Your task to perform on an android device: Open the stopwatch Image 0: 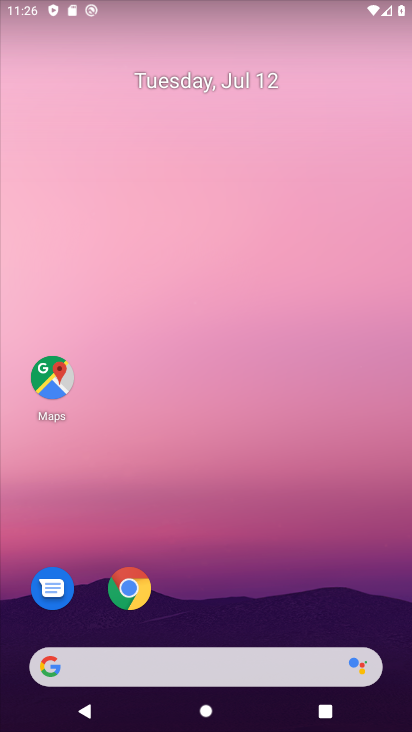
Step 0: drag from (191, 580) to (228, 230)
Your task to perform on an android device: Open the stopwatch Image 1: 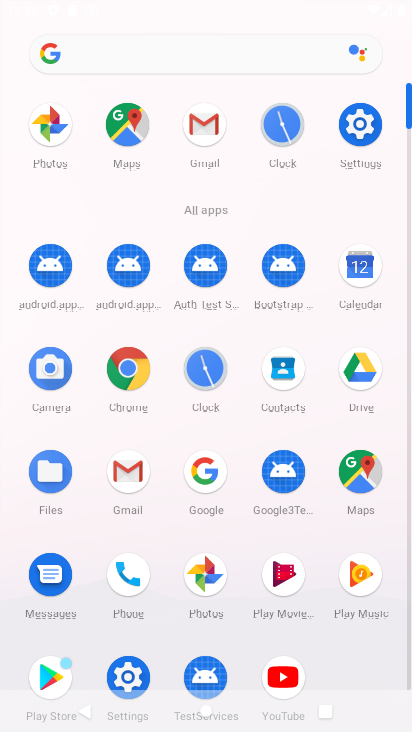
Step 1: click (211, 366)
Your task to perform on an android device: Open the stopwatch Image 2: 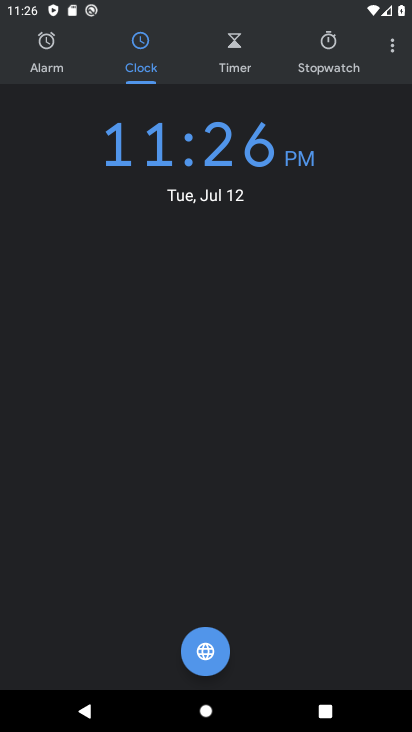
Step 2: click (315, 65)
Your task to perform on an android device: Open the stopwatch Image 3: 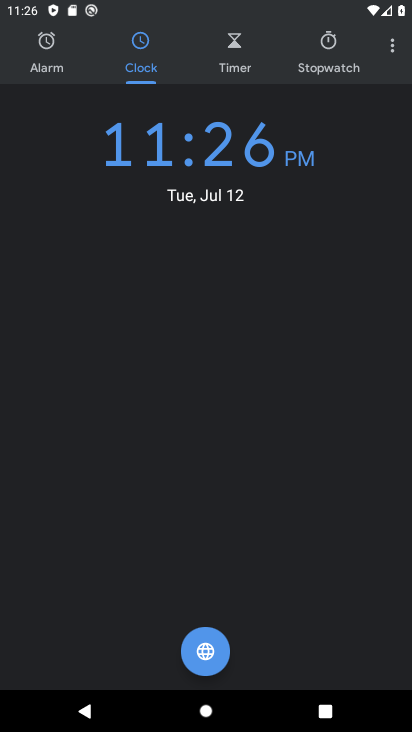
Step 3: click (335, 57)
Your task to perform on an android device: Open the stopwatch Image 4: 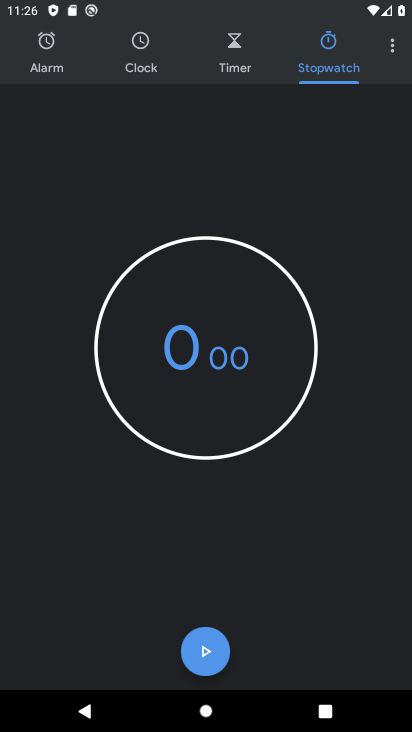
Step 4: task complete